Your task to perform on an android device: Go to Wikipedia Image 0: 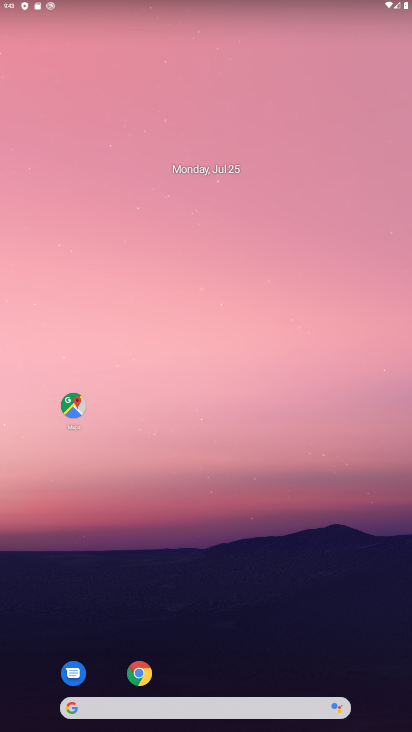
Step 0: drag from (245, 637) to (244, 11)
Your task to perform on an android device: Go to Wikipedia Image 1: 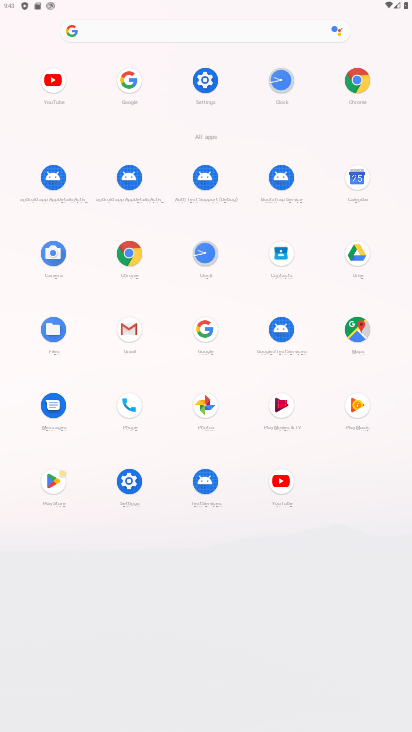
Step 1: click (127, 246)
Your task to perform on an android device: Go to Wikipedia Image 2: 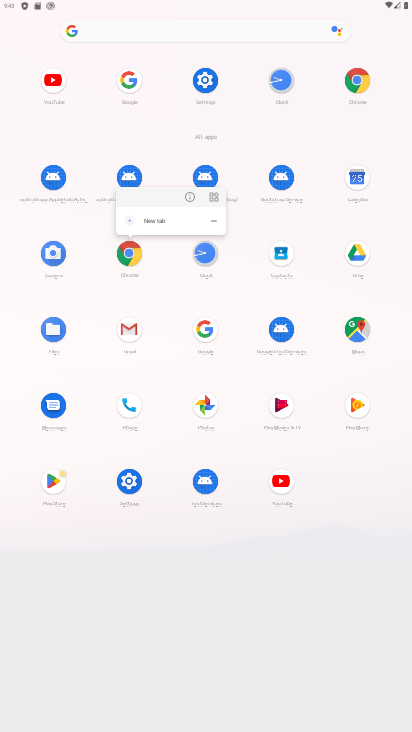
Step 2: click (121, 248)
Your task to perform on an android device: Go to Wikipedia Image 3: 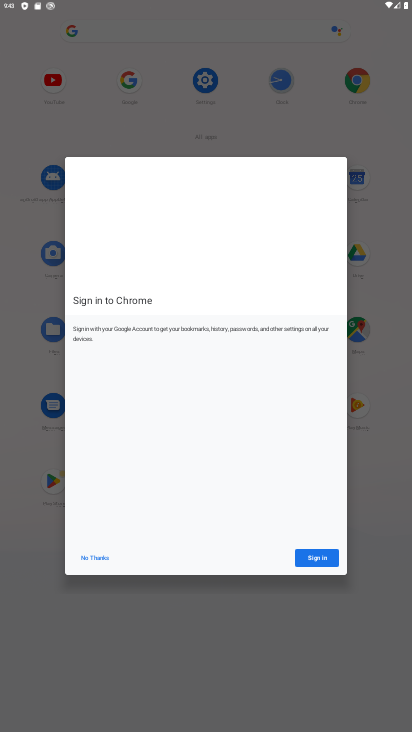
Step 3: click (324, 561)
Your task to perform on an android device: Go to Wikipedia Image 4: 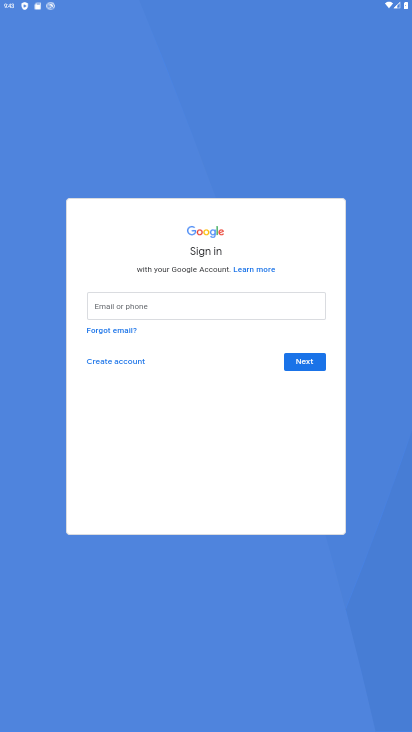
Step 4: task complete